Your task to perform on an android device: set default search engine in the chrome app Image 0: 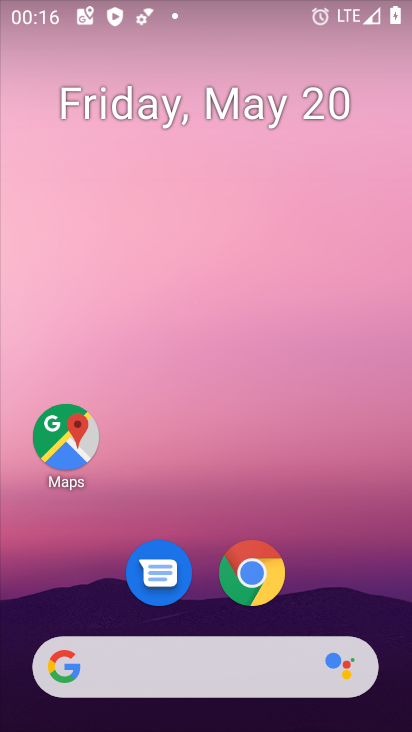
Step 0: click (237, 568)
Your task to perform on an android device: set default search engine in the chrome app Image 1: 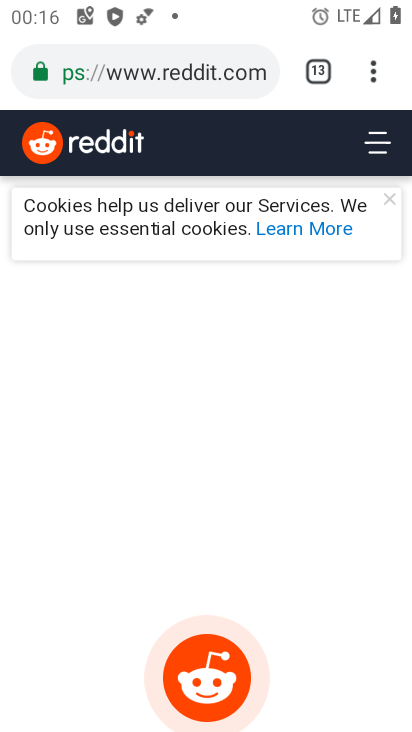
Step 1: click (381, 74)
Your task to perform on an android device: set default search engine in the chrome app Image 2: 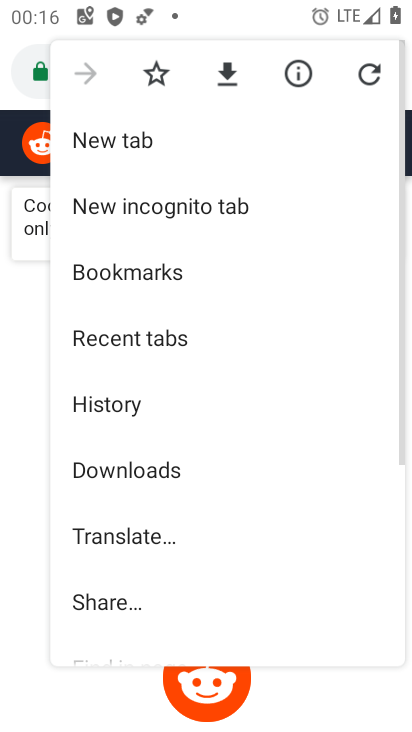
Step 2: drag from (190, 562) to (205, 310)
Your task to perform on an android device: set default search engine in the chrome app Image 3: 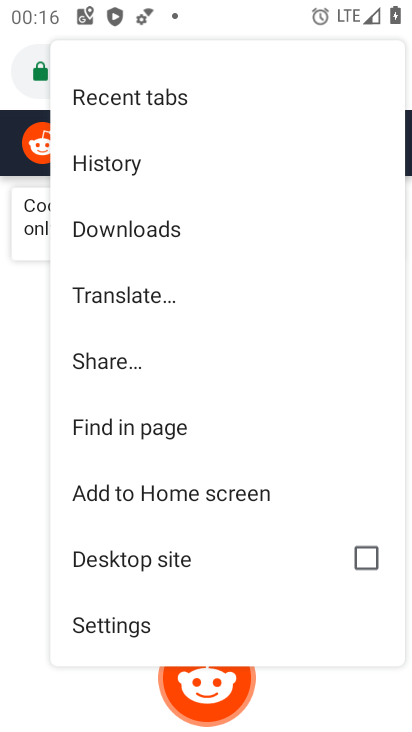
Step 3: click (155, 632)
Your task to perform on an android device: set default search engine in the chrome app Image 4: 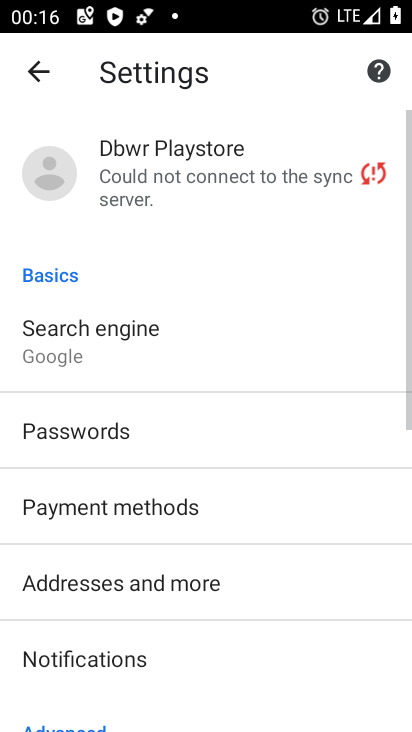
Step 4: click (151, 335)
Your task to perform on an android device: set default search engine in the chrome app Image 5: 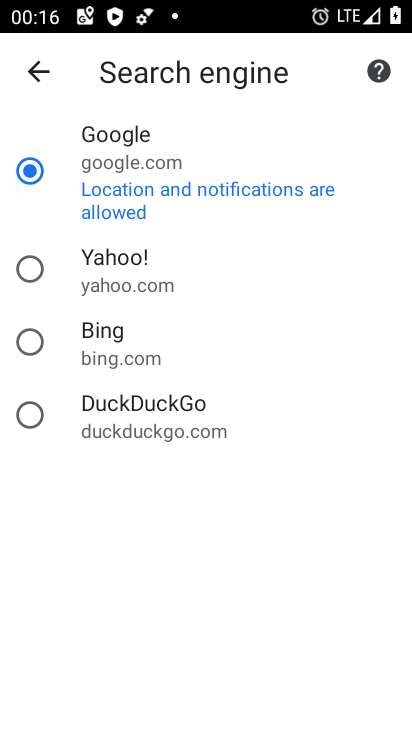
Step 5: click (75, 280)
Your task to perform on an android device: set default search engine in the chrome app Image 6: 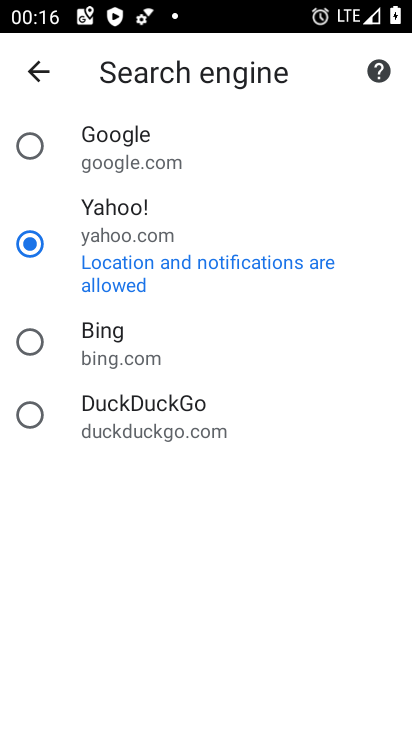
Step 6: task complete